Your task to perform on an android device: How far is the moon? Image 0: 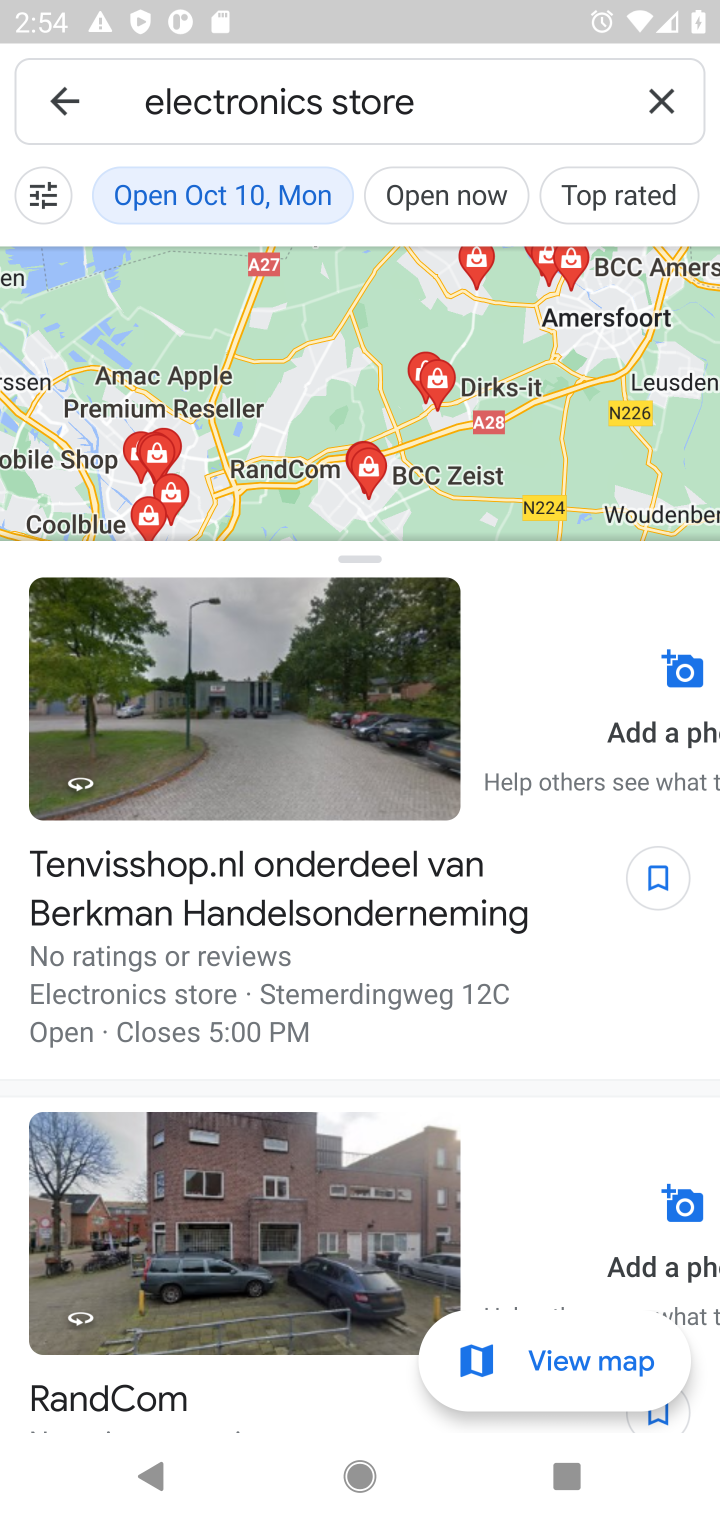
Step 0: press home button
Your task to perform on an android device: How far is the moon? Image 1: 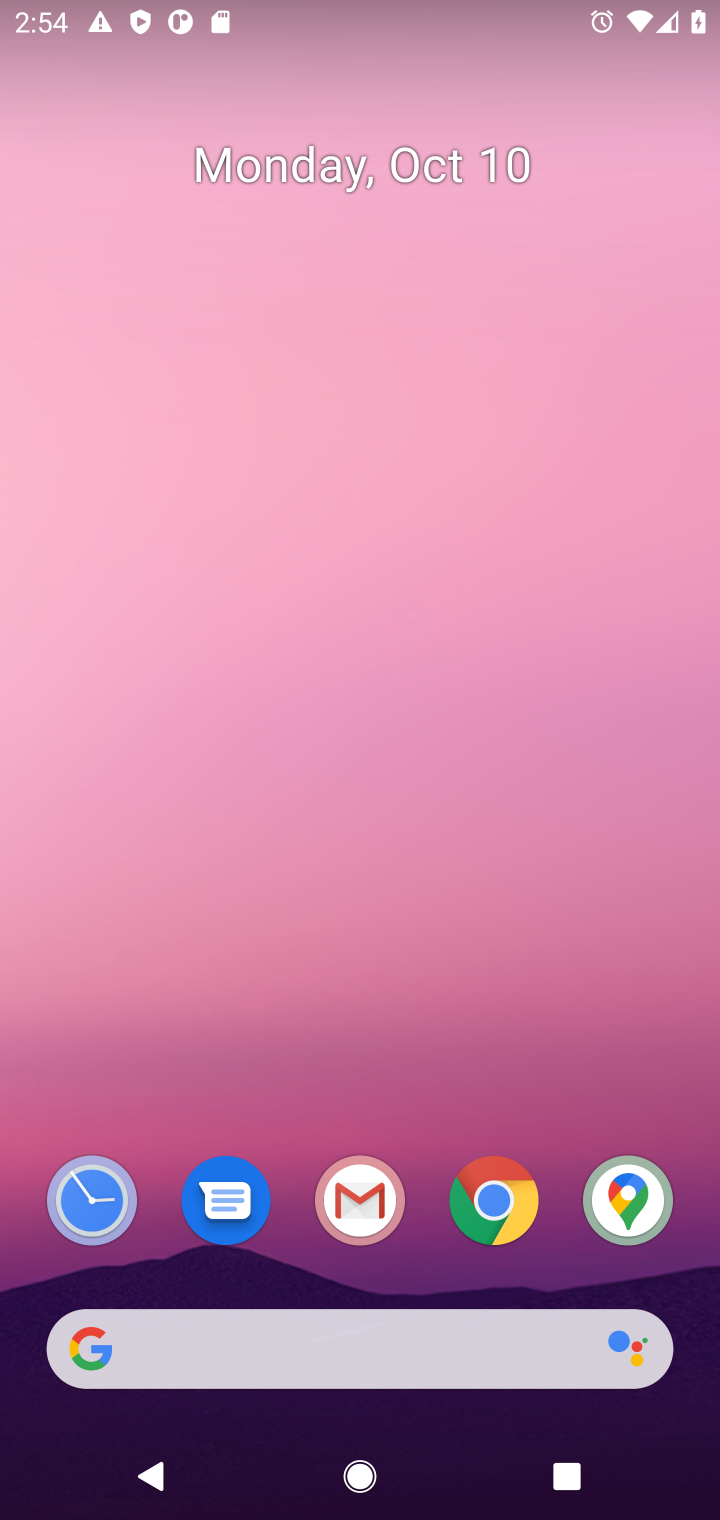
Step 1: click (497, 1176)
Your task to perform on an android device: How far is the moon? Image 2: 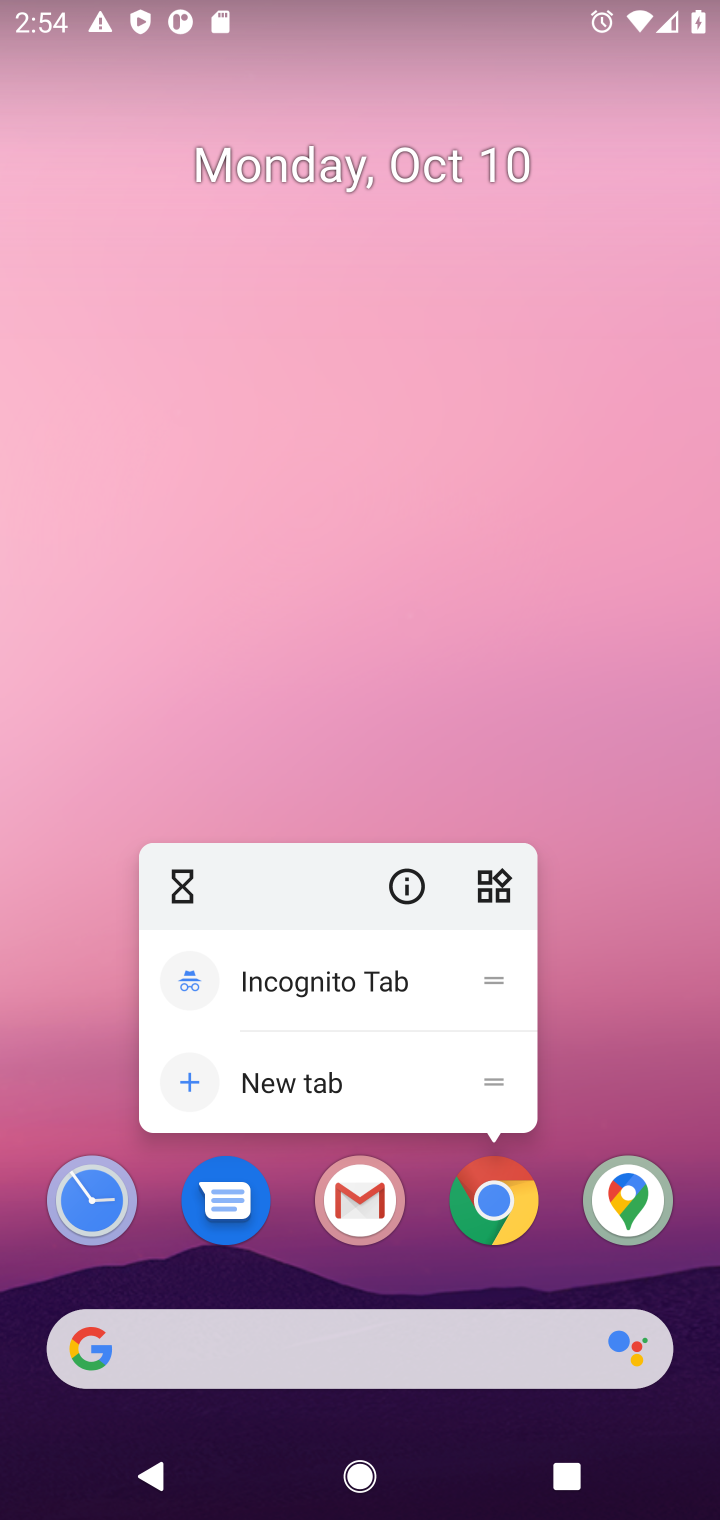
Step 2: click (497, 1186)
Your task to perform on an android device: How far is the moon? Image 3: 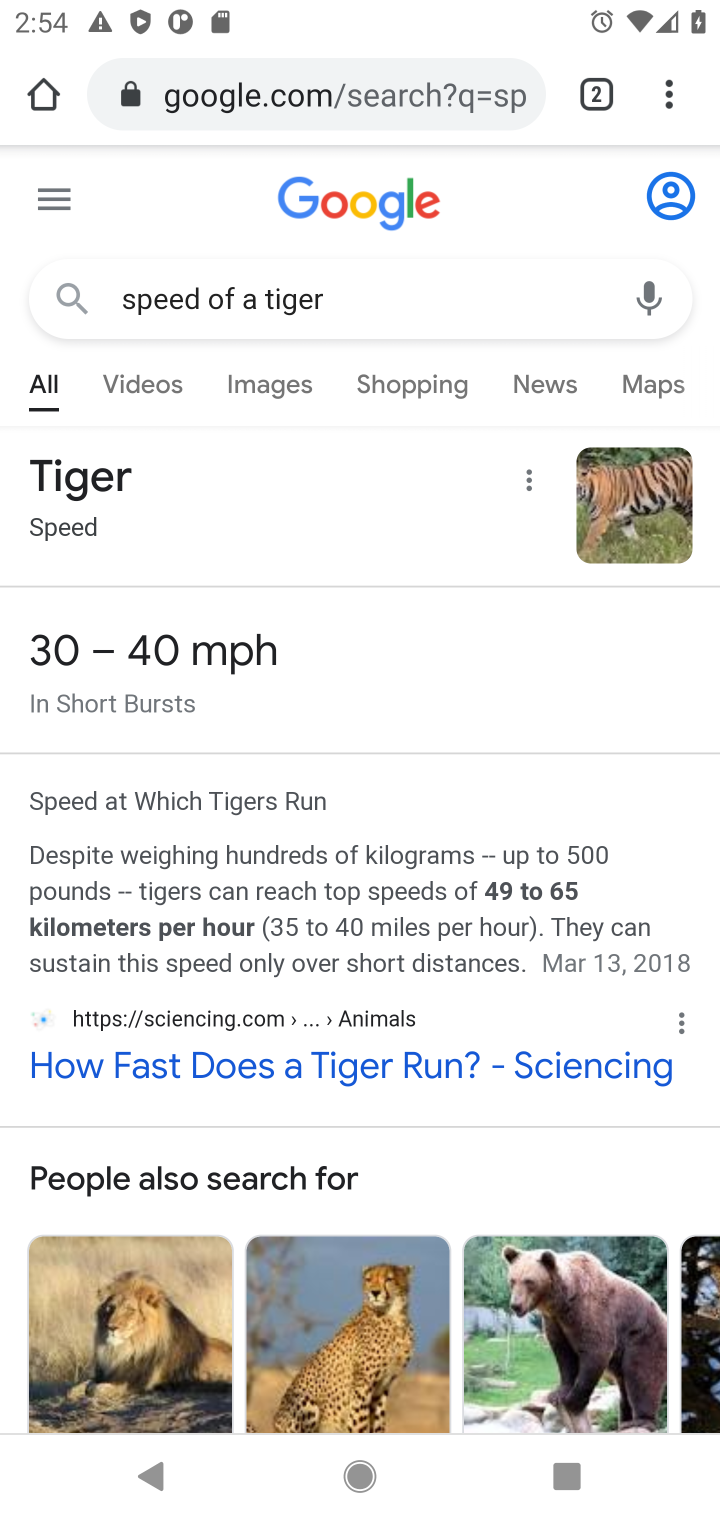
Step 3: click (228, 104)
Your task to perform on an android device: How far is the moon? Image 4: 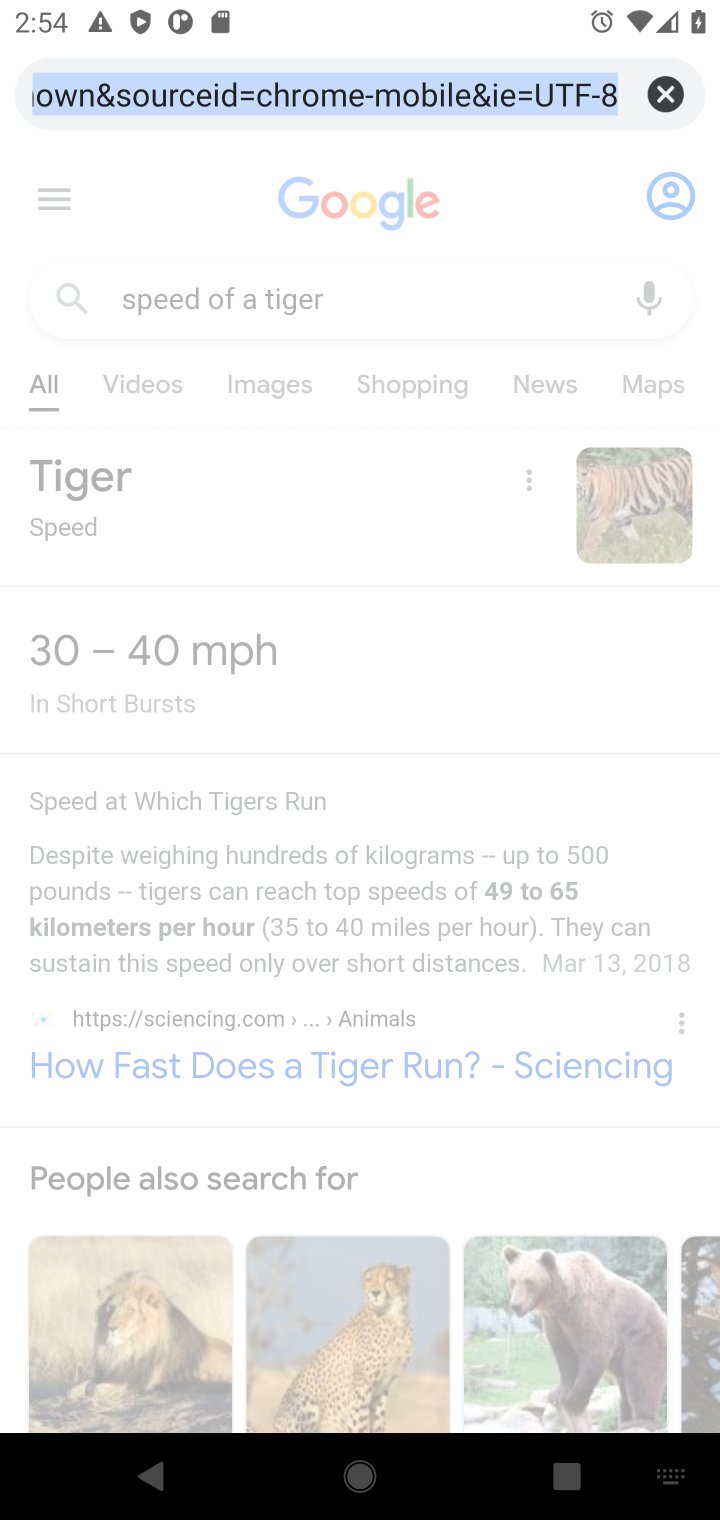
Step 4: type "How far is the moon"
Your task to perform on an android device: How far is the moon? Image 5: 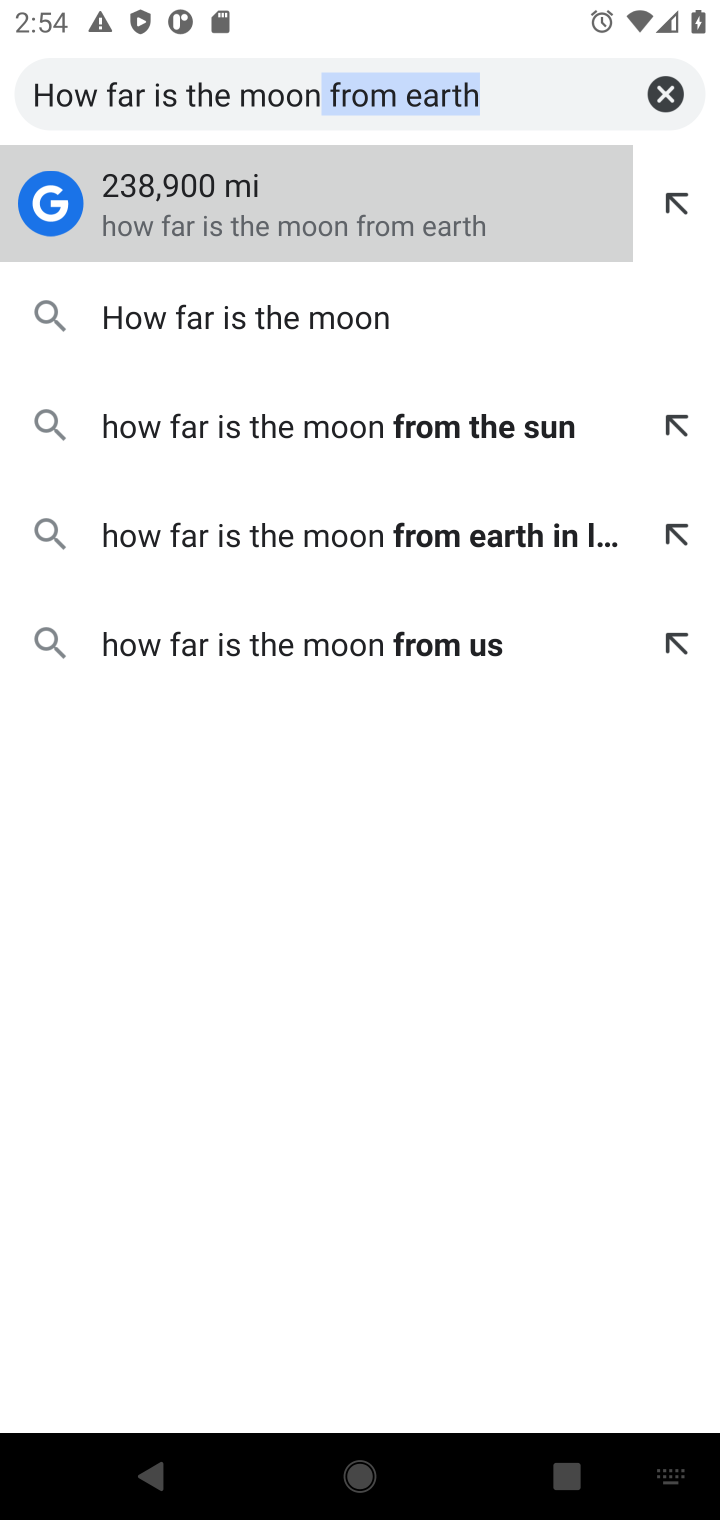
Step 5: click (358, 229)
Your task to perform on an android device: How far is the moon? Image 6: 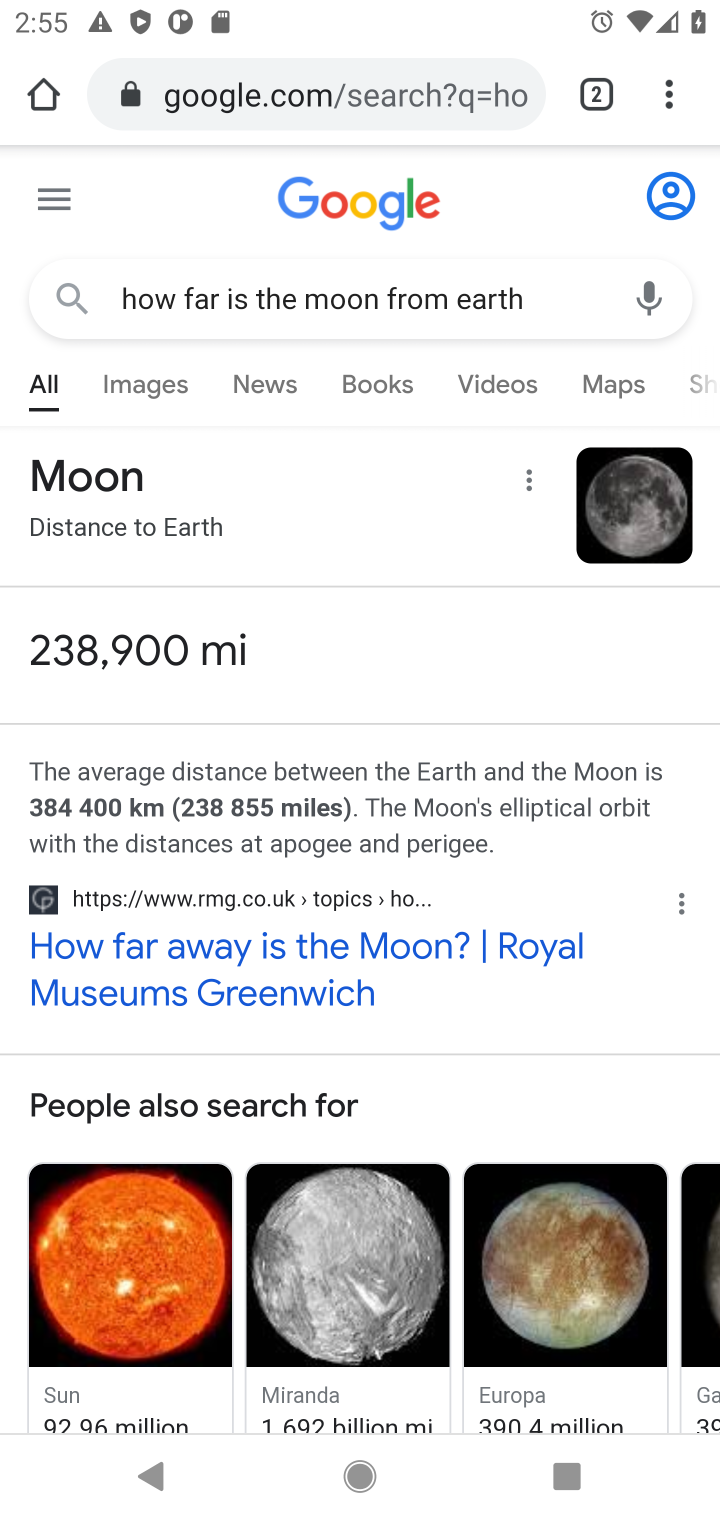
Step 6: task complete